Your task to perform on an android device: move an email to a new category in the gmail app Image 0: 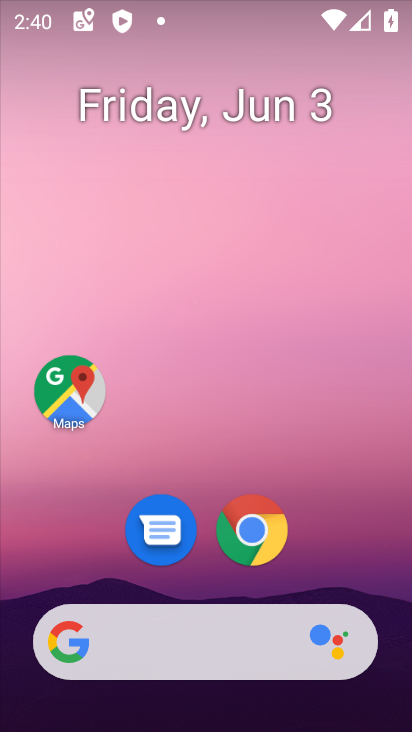
Step 0: drag from (300, 460) to (246, 140)
Your task to perform on an android device: move an email to a new category in the gmail app Image 1: 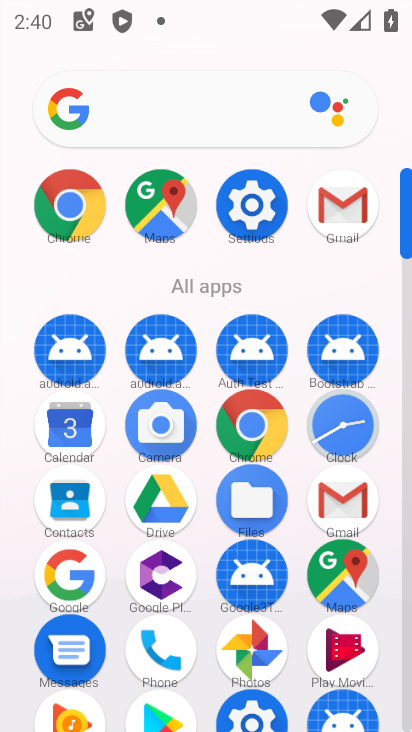
Step 1: click (334, 211)
Your task to perform on an android device: move an email to a new category in the gmail app Image 2: 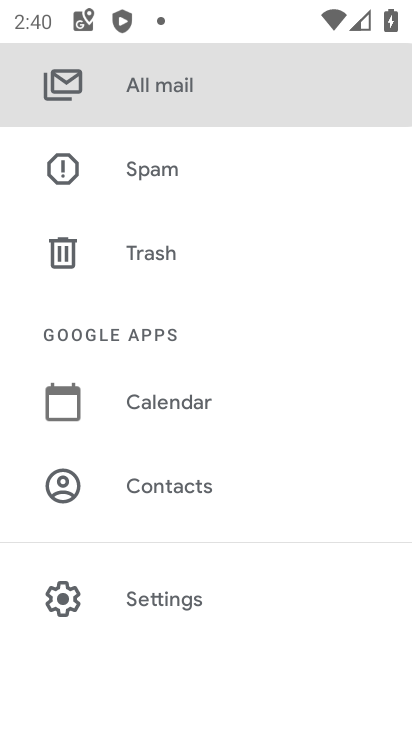
Step 2: click (135, 99)
Your task to perform on an android device: move an email to a new category in the gmail app Image 3: 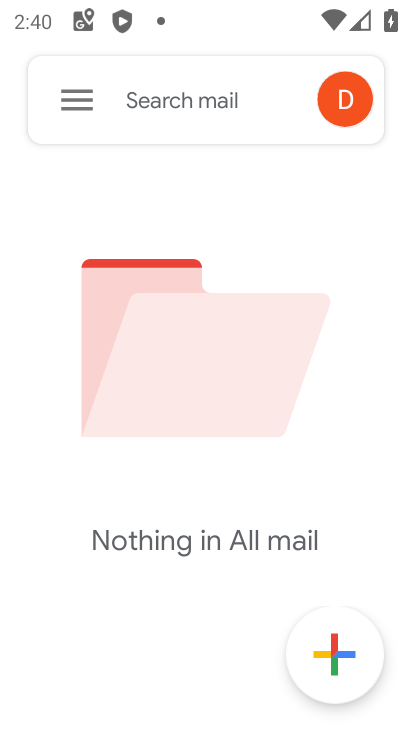
Step 3: task complete